Your task to perform on an android device: see tabs open on other devices in the chrome app Image 0: 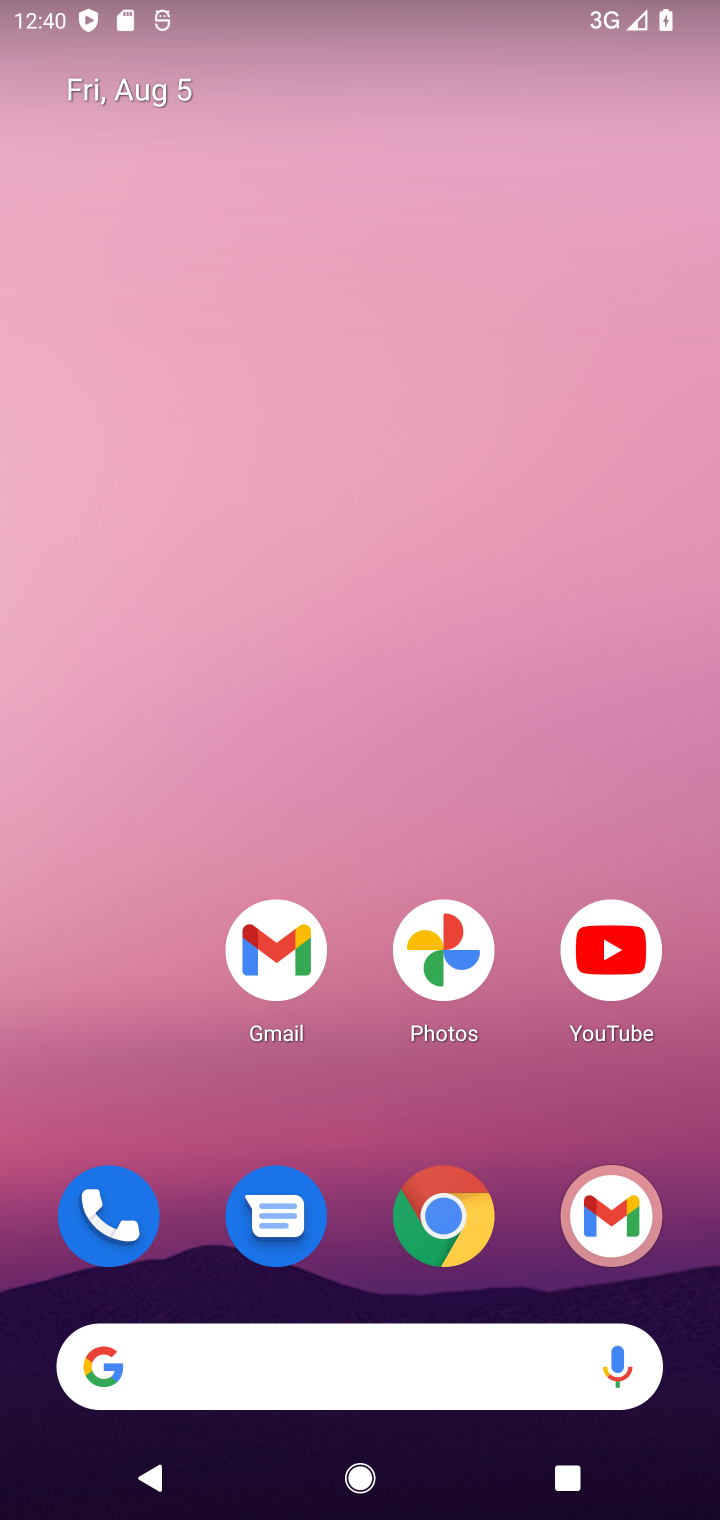
Step 0: drag from (441, 1325) to (441, 31)
Your task to perform on an android device: see tabs open on other devices in the chrome app Image 1: 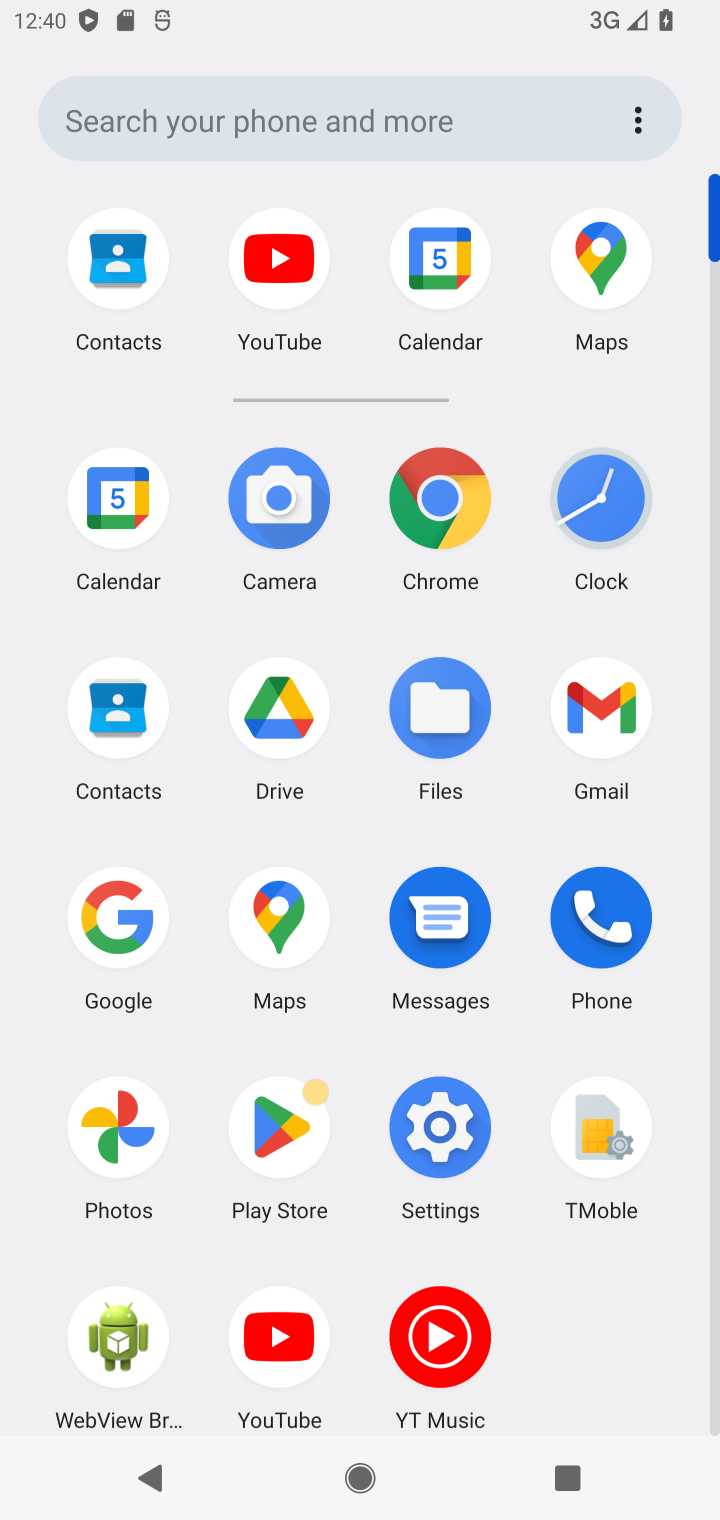
Step 1: click (414, 484)
Your task to perform on an android device: see tabs open on other devices in the chrome app Image 2: 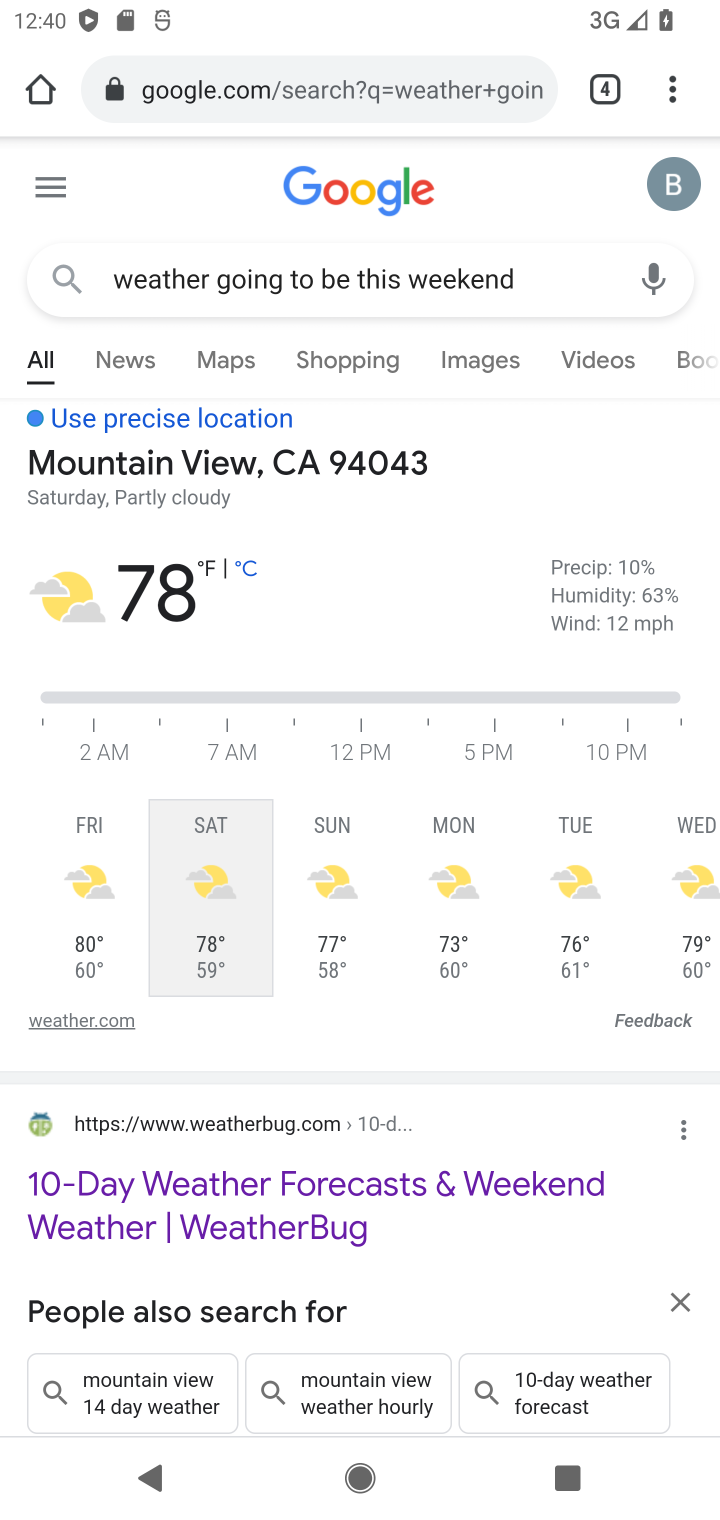
Step 2: click (671, 71)
Your task to perform on an android device: see tabs open on other devices in the chrome app Image 3: 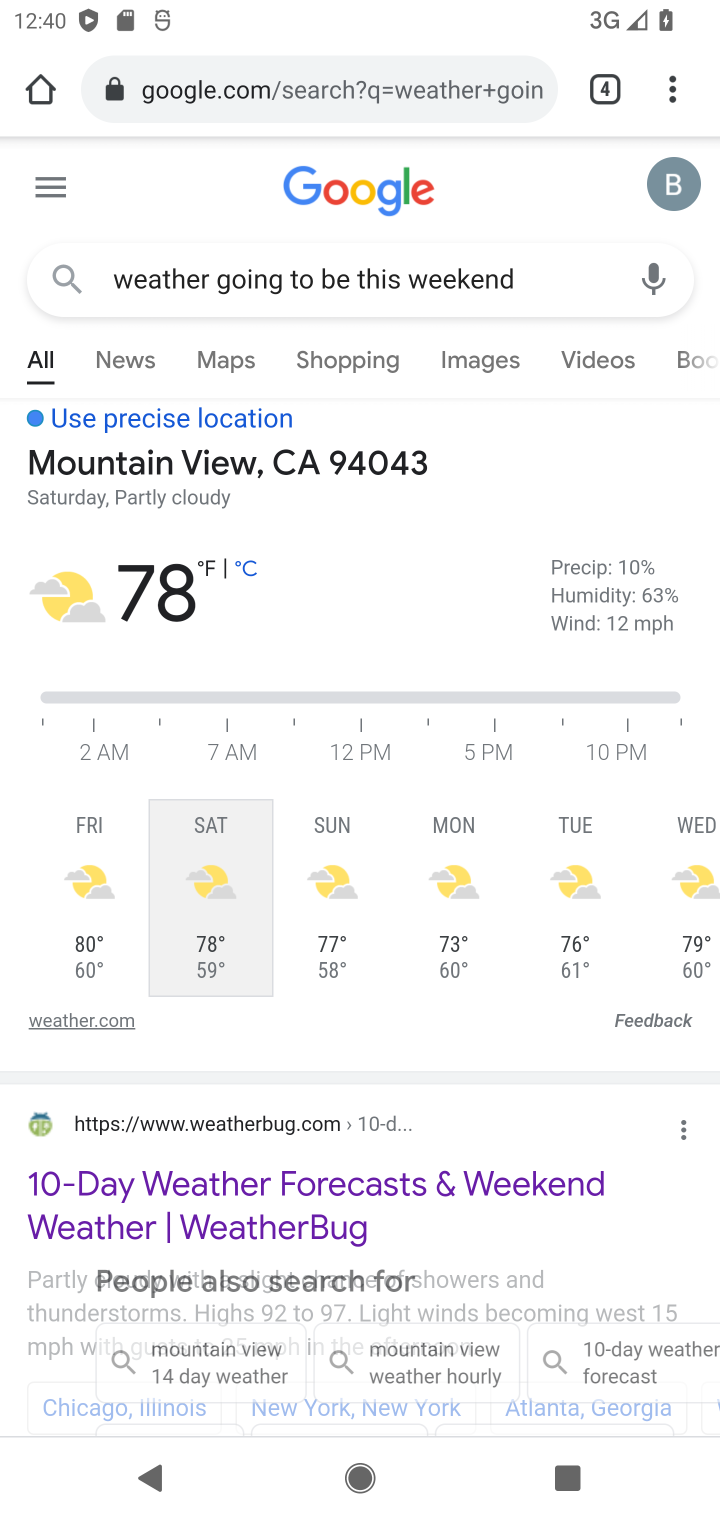
Step 3: drag from (665, 84) to (397, 701)
Your task to perform on an android device: see tabs open on other devices in the chrome app Image 4: 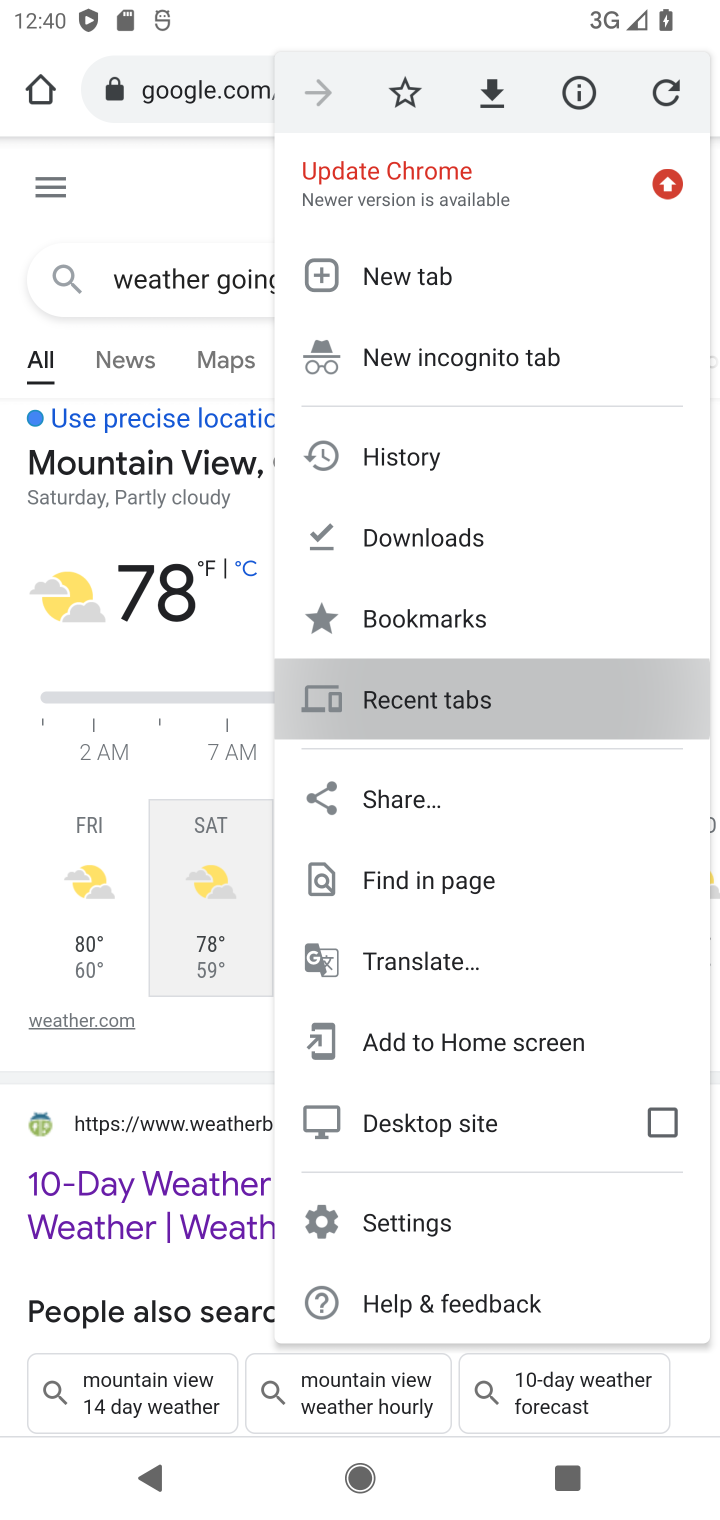
Step 4: click (397, 701)
Your task to perform on an android device: see tabs open on other devices in the chrome app Image 5: 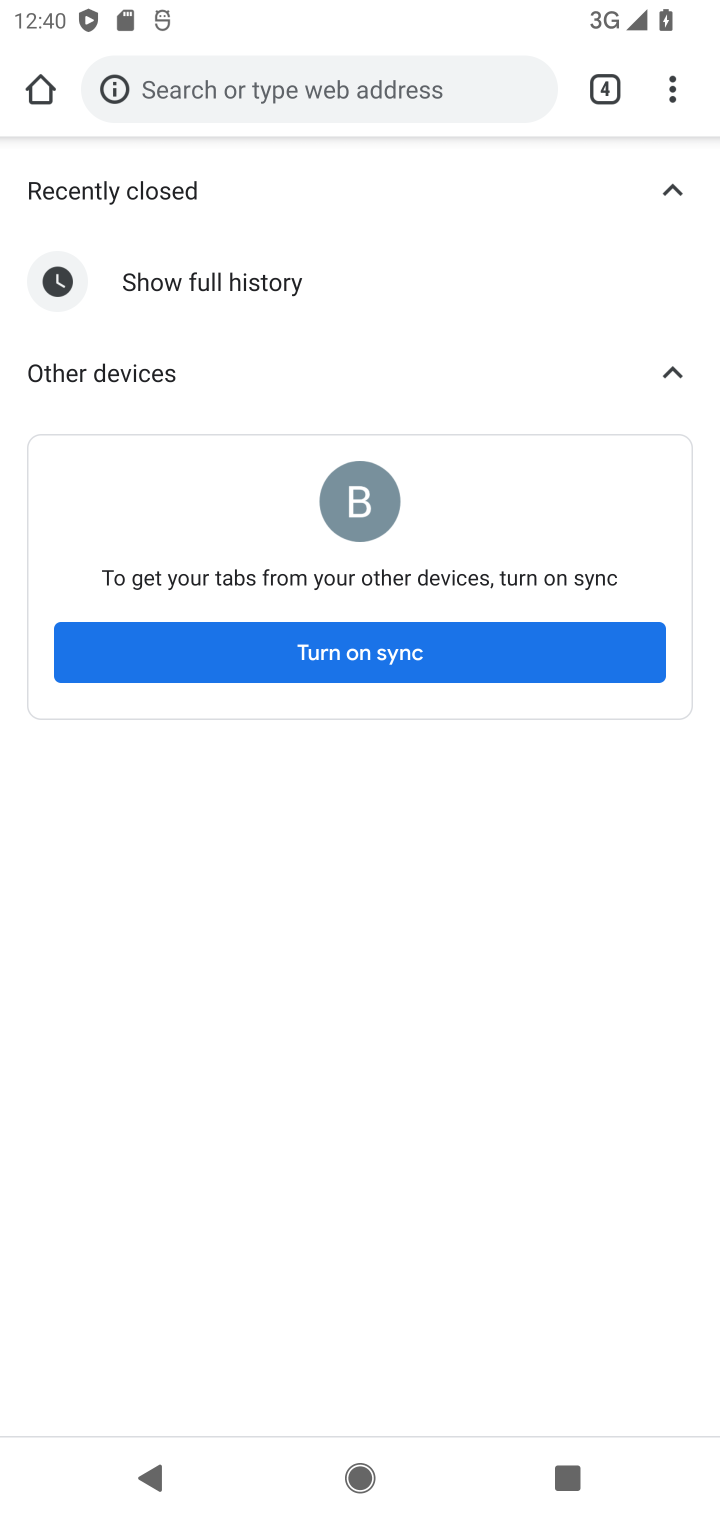
Step 5: task complete